Your task to perform on an android device: Go to privacy settings Image 0: 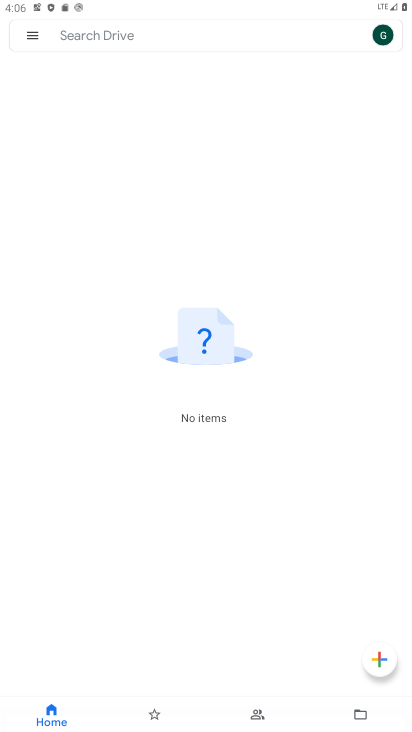
Step 0: press home button
Your task to perform on an android device: Go to privacy settings Image 1: 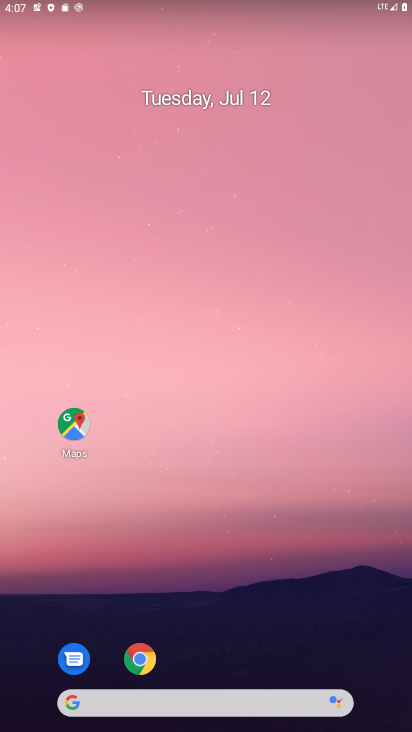
Step 1: drag from (205, 728) to (187, 171)
Your task to perform on an android device: Go to privacy settings Image 2: 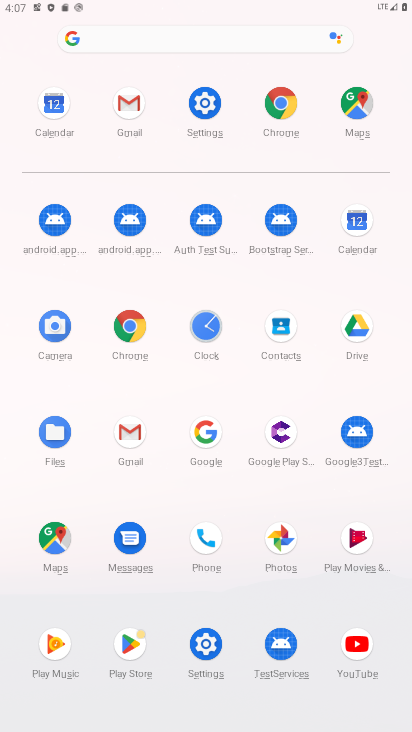
Step 2: click (200, 98)
Your task to perform on an android device: Go to privacy settings Image 3: 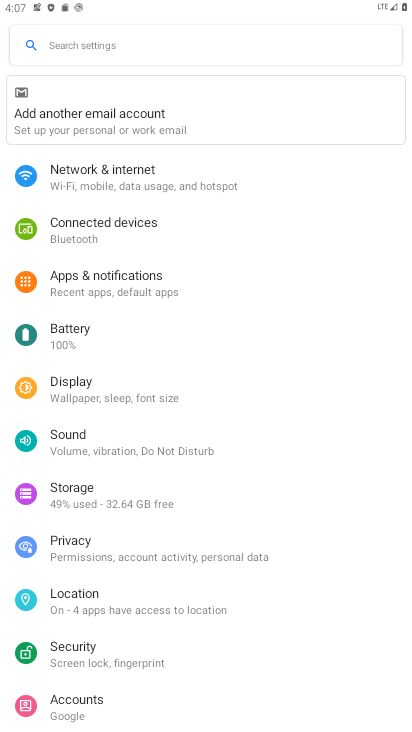
Step 3: click (99, 546)
Your task to perform on an android device: Go to privacy settings Image 4: 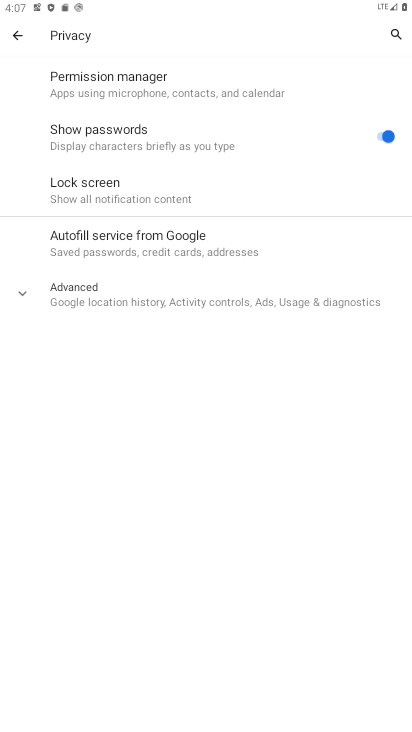
Step 4: task complete